Your task to perform on an android device: turn on airplane mode Image 0: 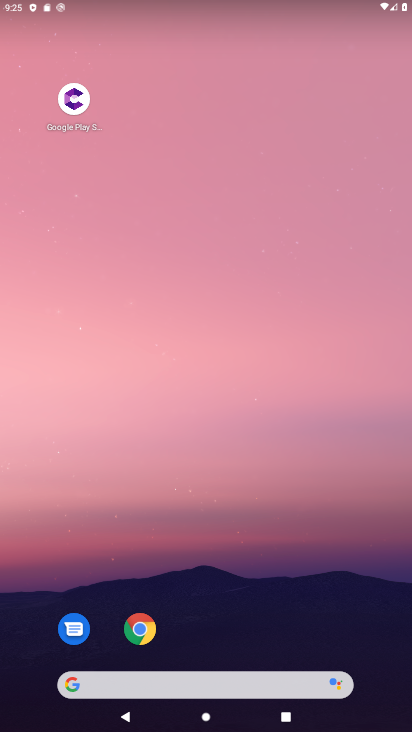
Step 0: drag from (227, 8) to (408, 434)
Your task to perform on an android device: turn on airplane mode Image 1: 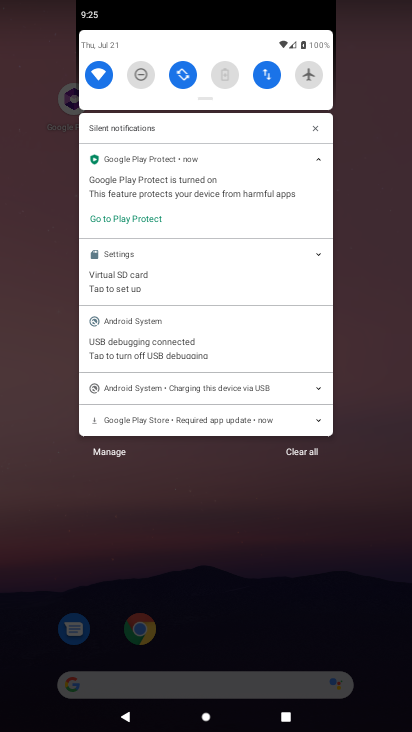
Step 1: click (300, 72)
Your task to perform on an android device: turn on airplane mode Image 2: 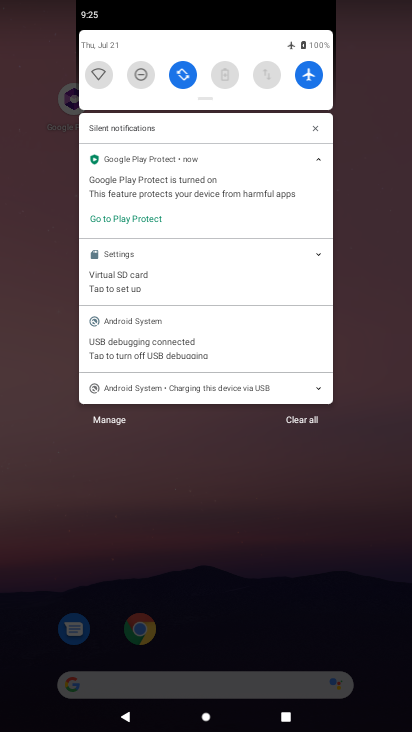
Step 2: task complete